Your task to perform on an android device: find photos in the google photos app Image 0: 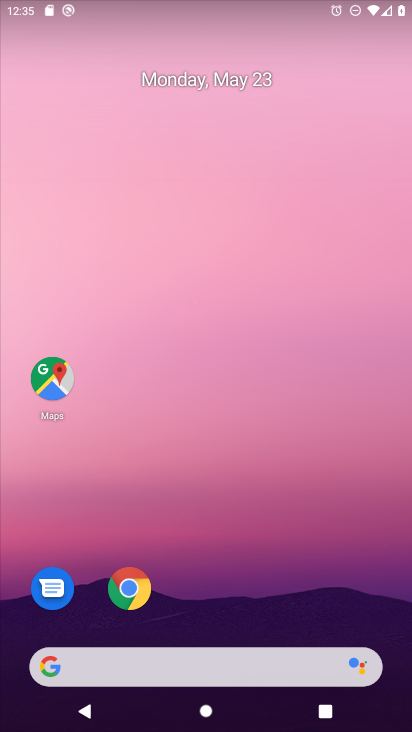
Step 0: drag from (247, 677) to (81, 100)
Your task to perform on an android device: find photos in the google photos app Image 1: 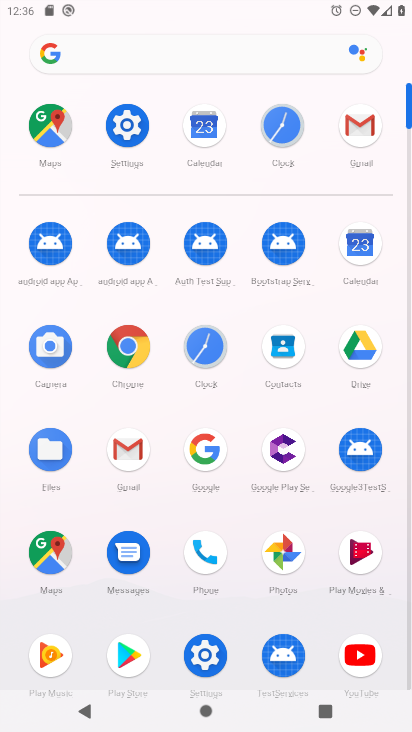
Step 1: click (283, 561)
Your task to perform on an android device: find photos in the google photos app Image 2: 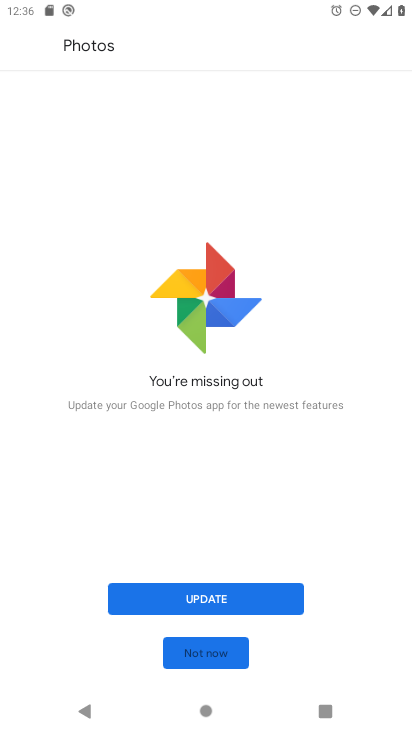
Step 2: click (223, 596)
Your task to perform on an android device: find photos in the google photos app Image 3: 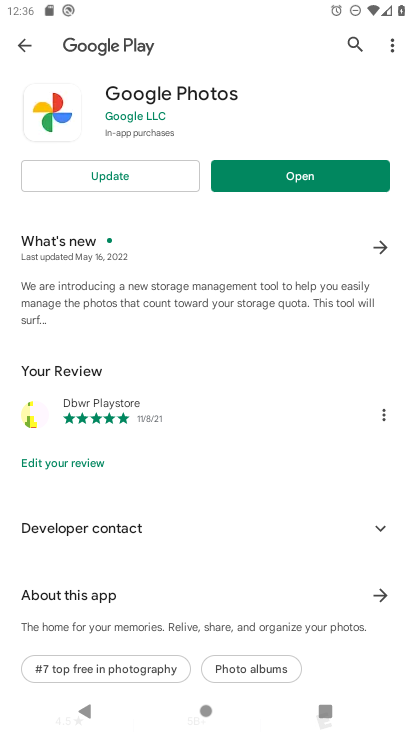
Step 3: click (290, 179)
Your task to perform on an android device: find photos in the google photos app Image 4: 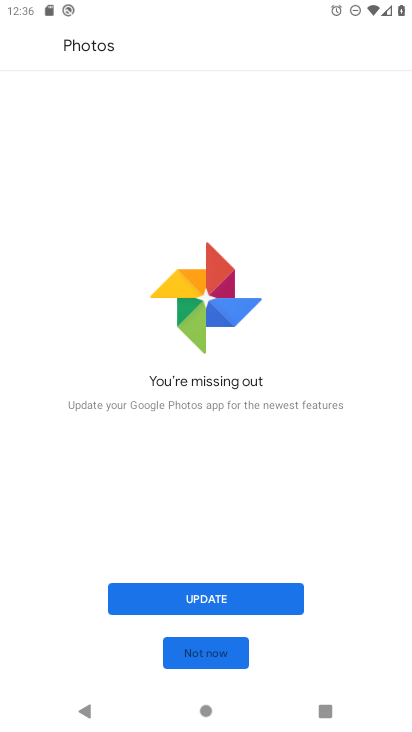
Step 4: click (238, 605)
Your task to perform on an android device: find photos in the google photos app Image 5: 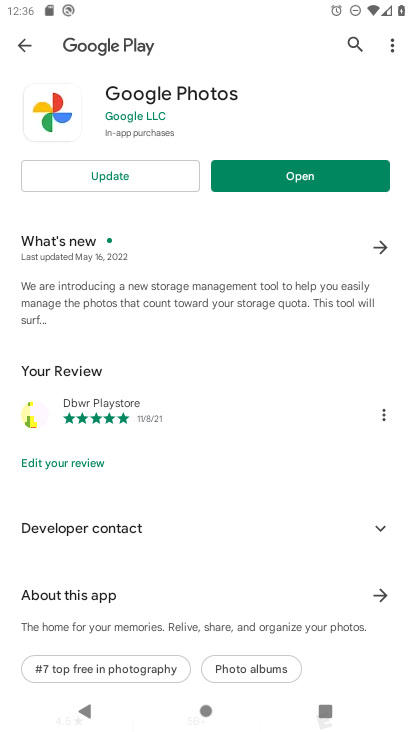
Step 5: click (92, 170)
Your task to perform on an android device: find photos in the google photos app Image 6: 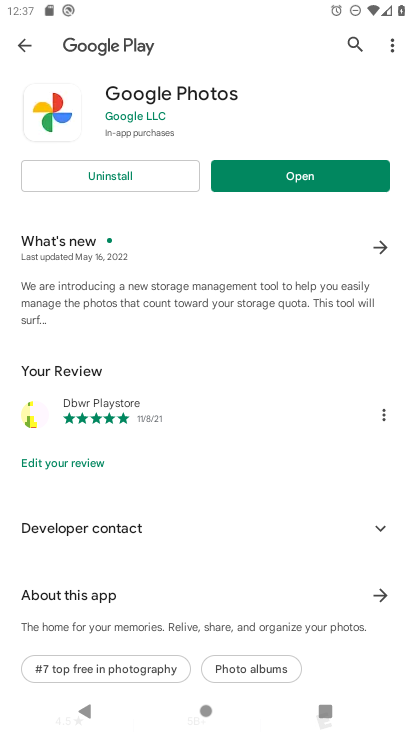
Step 6: click (276, 163)
Your task to perform on an android device: find photos in the google photos app Image 7: 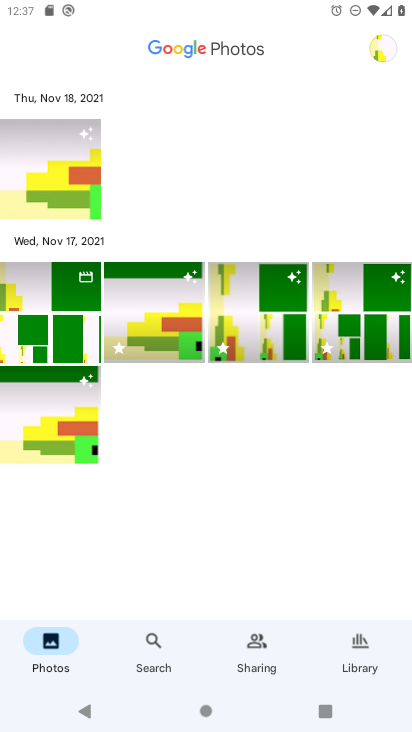
Step 7: task complete